Your task to perform on an android device: open a bookmark in the chrome app Image 0: 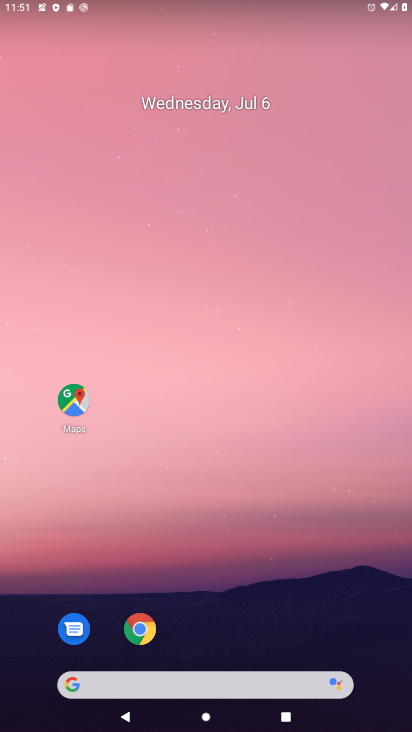
Step 0: click (137, 632)
Your task to perform on an android device: open a bookmark in the chrome app Image 1: 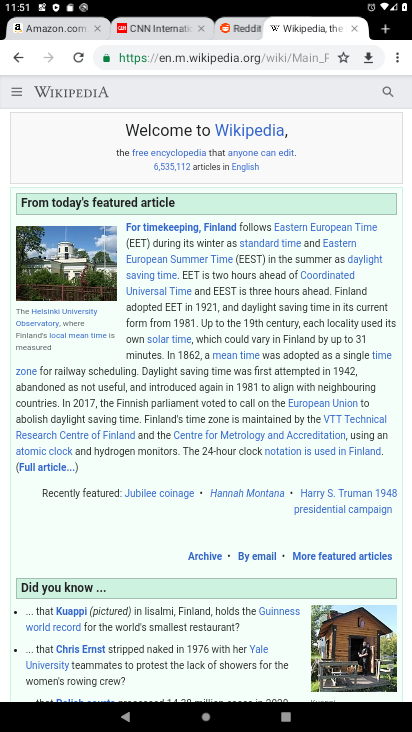
Step 1: click (394, 69)
Your task to perform on an android device: open a bookmark in the chrome app Image 2: 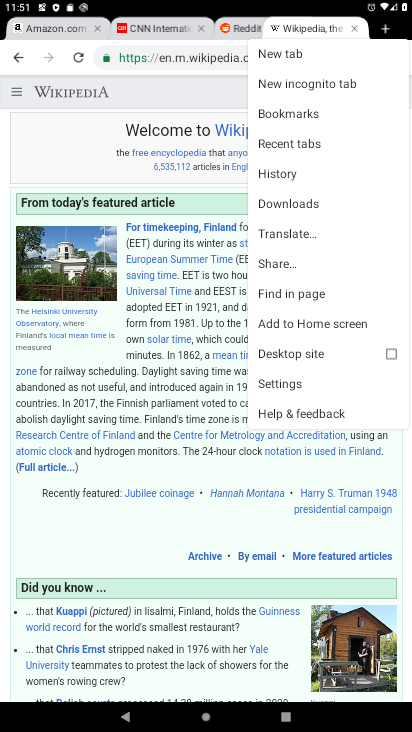
Step 2: click (257, 121)
Your task to perform on an android device: open a bookmark in the chrome app Image 3: 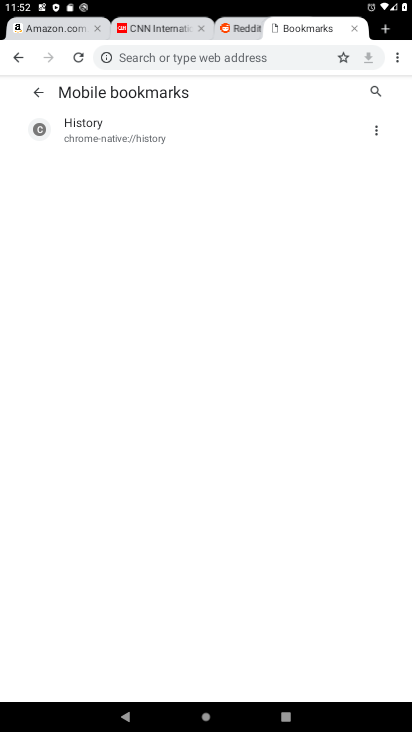
Step 3: task complete